Your task to perform on an android device: visit the assistant section in the google photos Image 0: 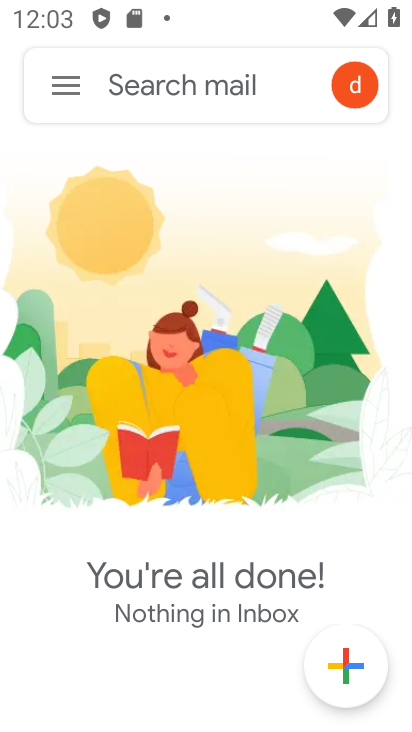
Step 0: press home button
Your task to perform on an android device: visit the assistant section in the google photos Image 1: 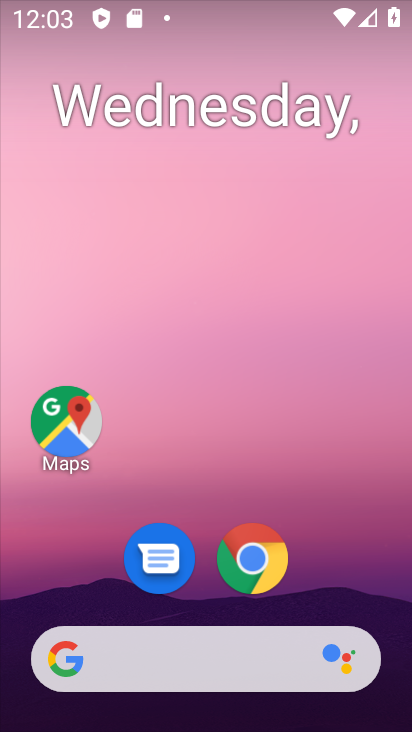
Step 1: drag from (294, 626) to (305, 48)
Your task to perform on an android device: visit the assistant section in the google photos Image 2: 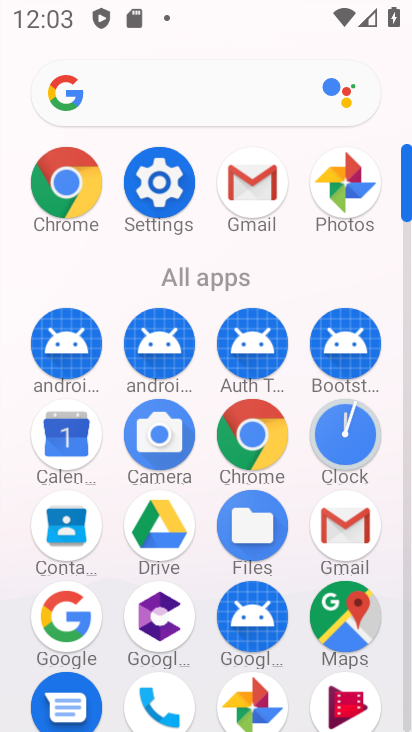
Step 2: drag from (224, 564) to (270, 278)
Your task to perform on an android device: visit the assistant section in the google photos Image 3: 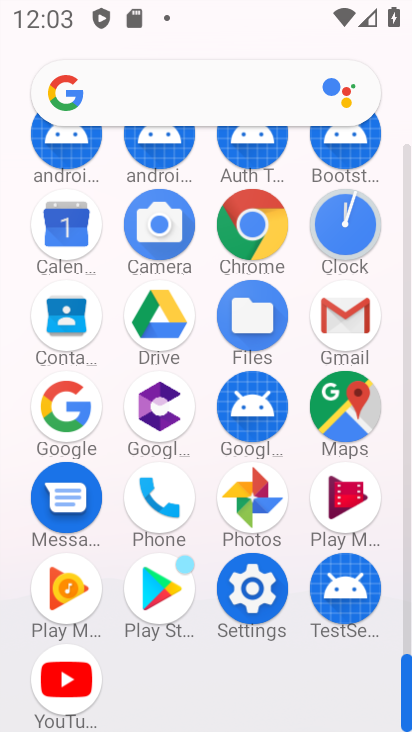
Step 3: click (268, 521)
Your task to perform on an android device: visit the assistant section in the google photos Image 4: 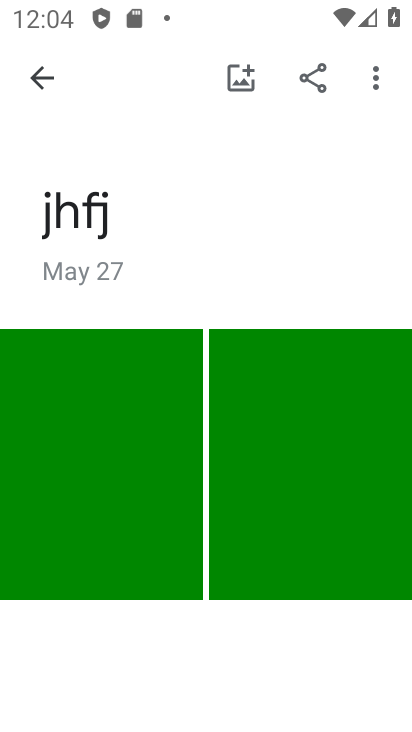
Step 4: click (38, 77)
Your task to perform on an android device: visit the assistant section in the google photos Image 5: 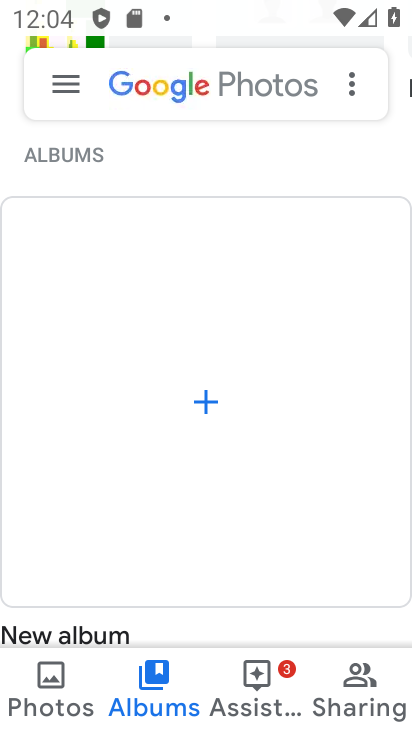
Step 5: click (261, 687)
Your task to perform on an android device: visit the assistant section in the google photos Image 6: 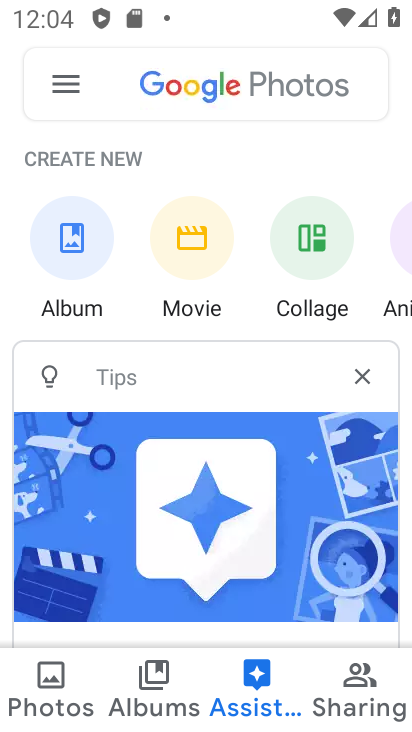
Step 6: task complete